Your task to perform on an android device: add a contact in the contacts app Image 0: 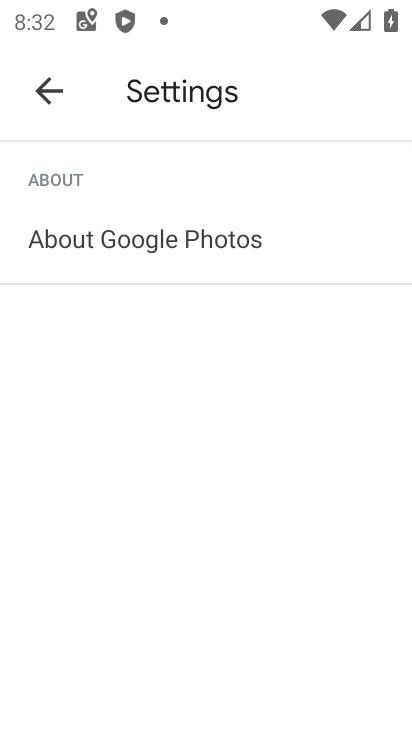
Step 0: press home button
Your task to perform on an android device: add a contact in the contacts app Image 1: 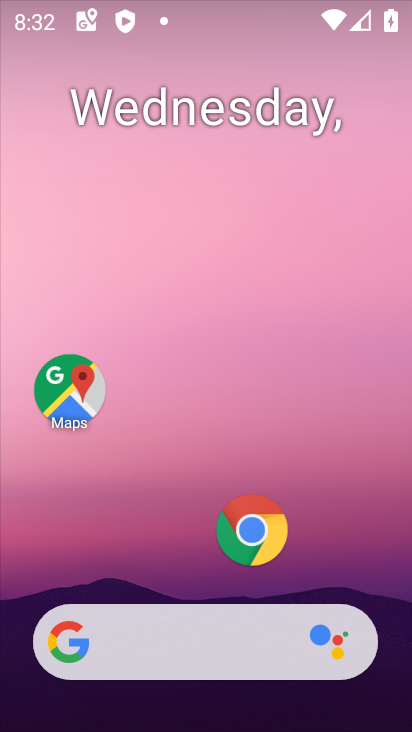
Step 1: drag from (96, 529) to (191, 53)
Your task to perform on an android device: add a contact in the contacts app Image 2: 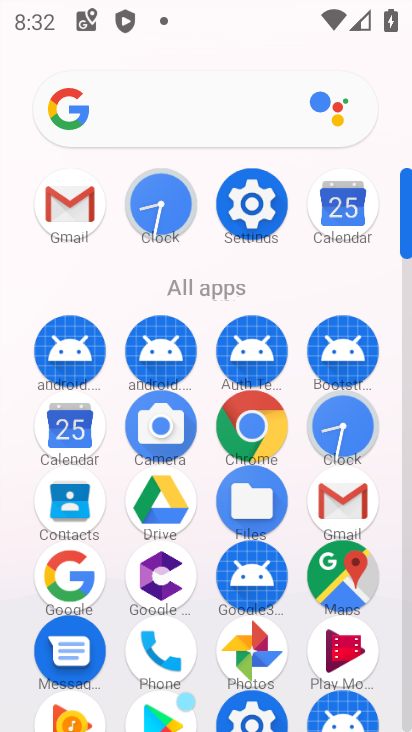
Step 2: click (73, 504)
Your task to perform on an android device: add a contact in the contacts app Image 3: 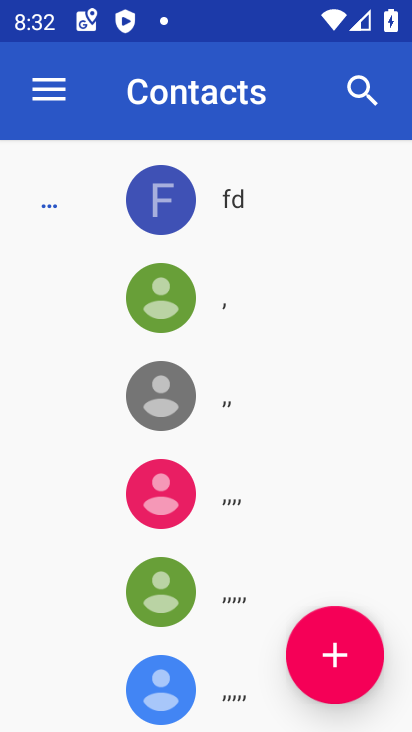
Step 3: click (320, 650)
Your task to perform on an android device: add a contact in the contacts app Image 4: 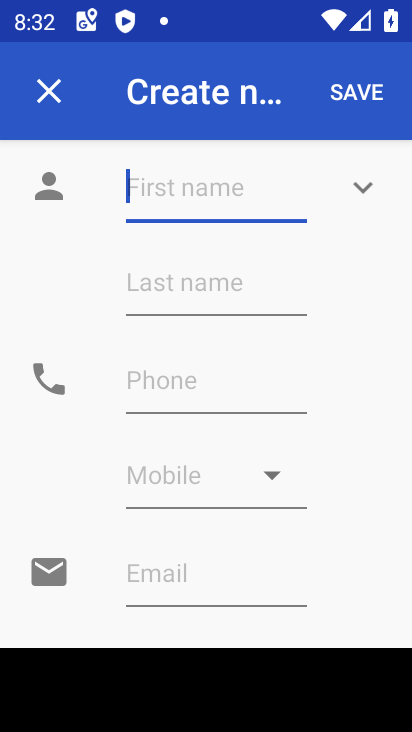
Step 4: type "cgcg"
Your task to perform on an android device: add a contact in the contacts app Image 5: 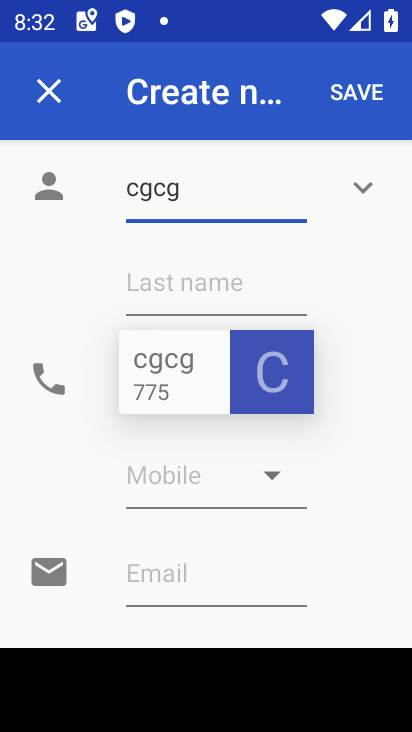
Step 5: click (111, 378)
Your task to perform on an android device: add a contact in the contacts app Image 6: 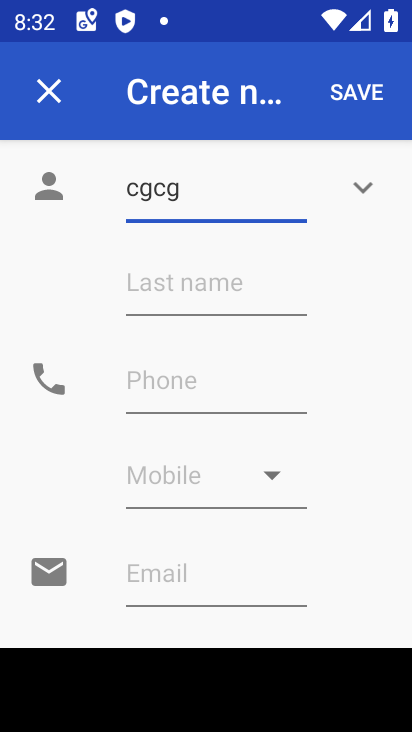
Step 6: click (140, 374)
Your task to perform on an android device: add a contact in the contacts app Image 7: 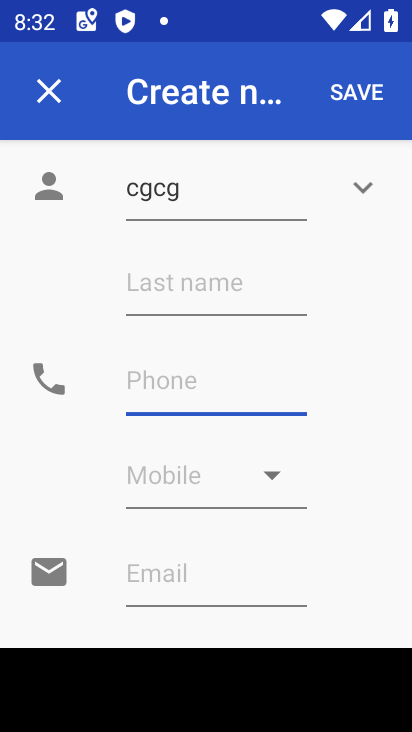
Step 7: type "6896"
Your task to perform on an android device: add a contact in the contacts app Image 8: 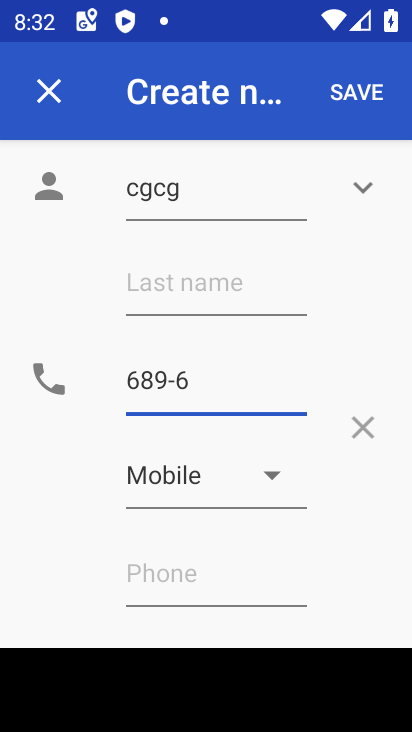
Step 8: click (363, 102)
Your task to perform on an android device: add a contact in the contacts app Image 9: 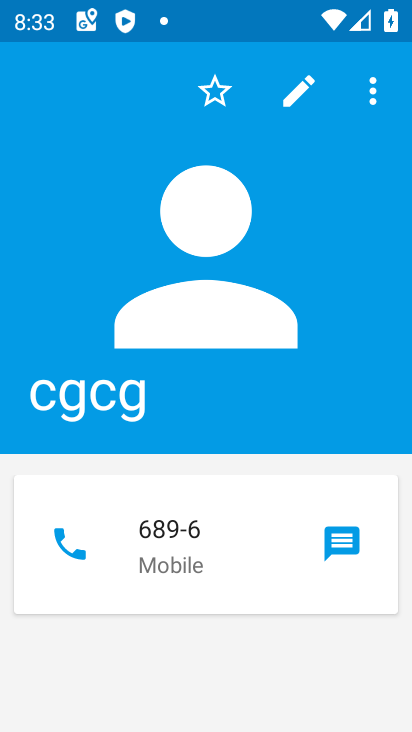
Step 9: task complete